Your task to perform on an android device: Go to sound settings Image 0: 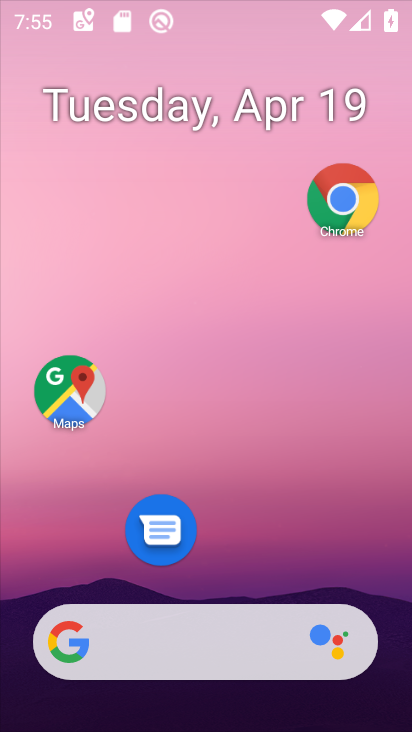
Step 0: drag from (229, 439) to (335, 164)
Your task to perform on an android device: Go to sound settings Image 1: 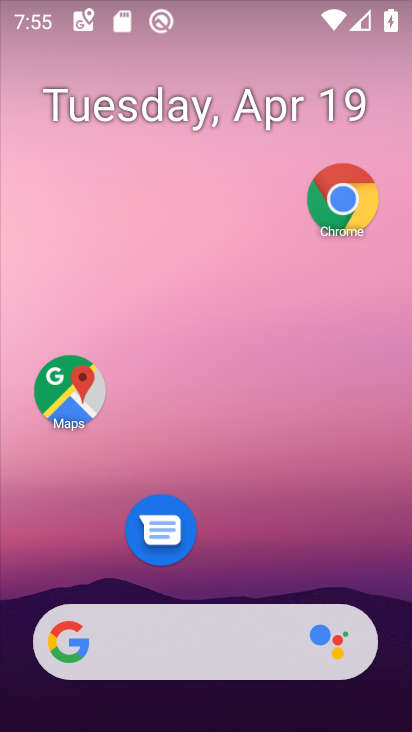
Step 1: drag from (223, 554) to (263, 19)
Your task to perform on an android device: Go to sound settings Image 2: 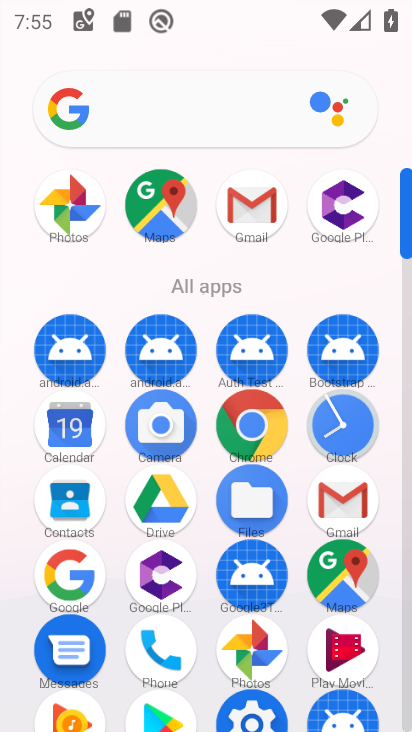
Step 2: click (257, 711)
Your task to perform on an android device: Go to sound settings Image 3: 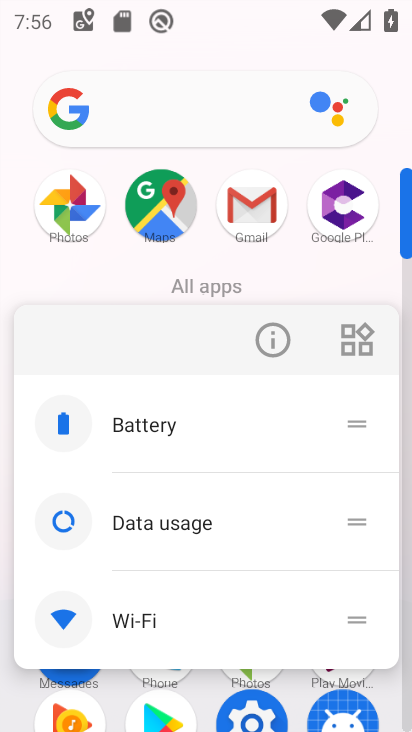
Step 3: click (283, 332)
Your task to perform on an android device: Go to sound settings Image 4: 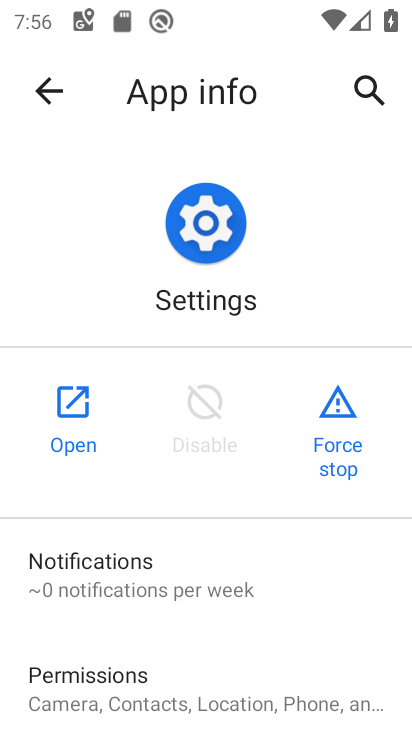
Step 4: click (74, 398)
Your task to perform on an android device: Go to sound settings Image 5: 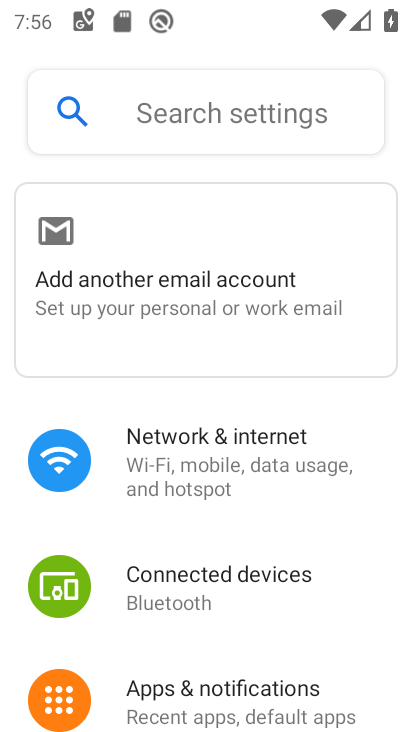
Step 5: drag from (215, 606) to (411, 64)
Your task to perform on an android device: Go to sound settings Image 6: 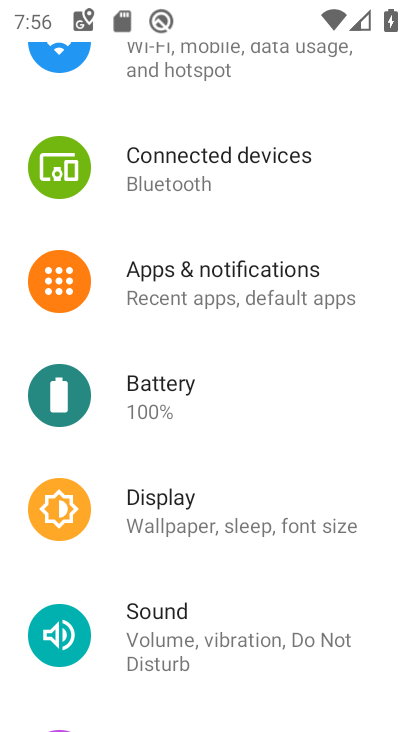
Step 6: click (164, 602)
Your task to perform on an android device: Go to sound settings Image 7: 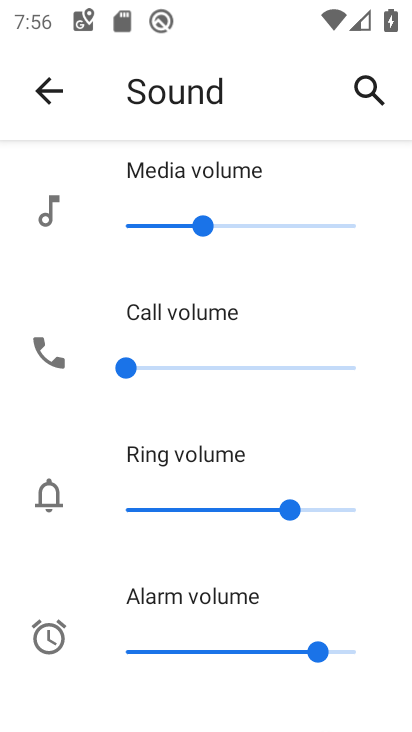
Step 7: task complete